Your task to perform on an android device: Go to calendar. Show me events next week Image 0: 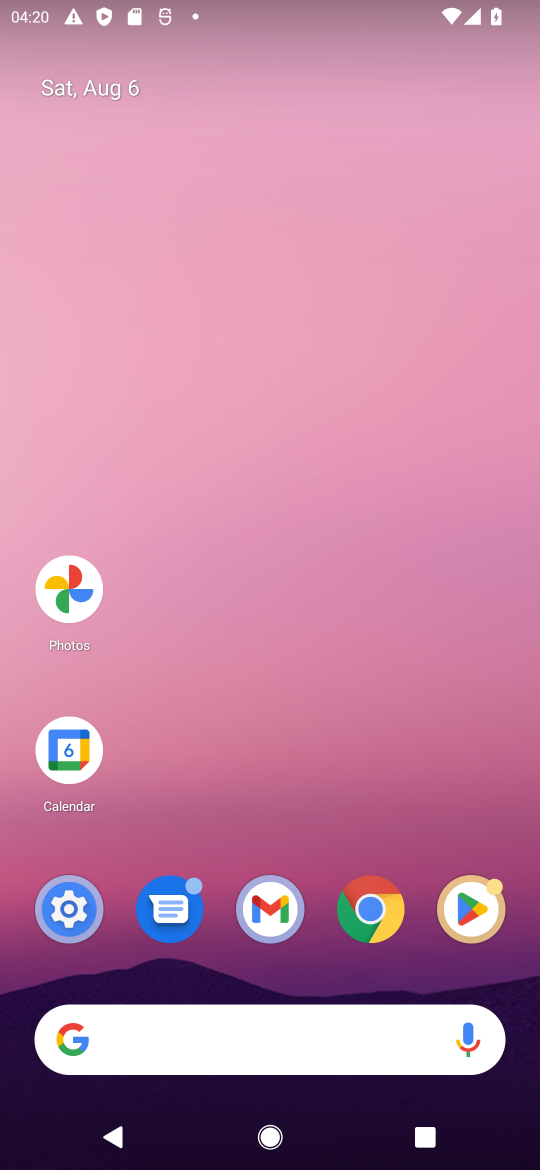
Step 0: click (62, 747)
Your task to perform on an android device: Go to calendar. Show me events next week Image 1: 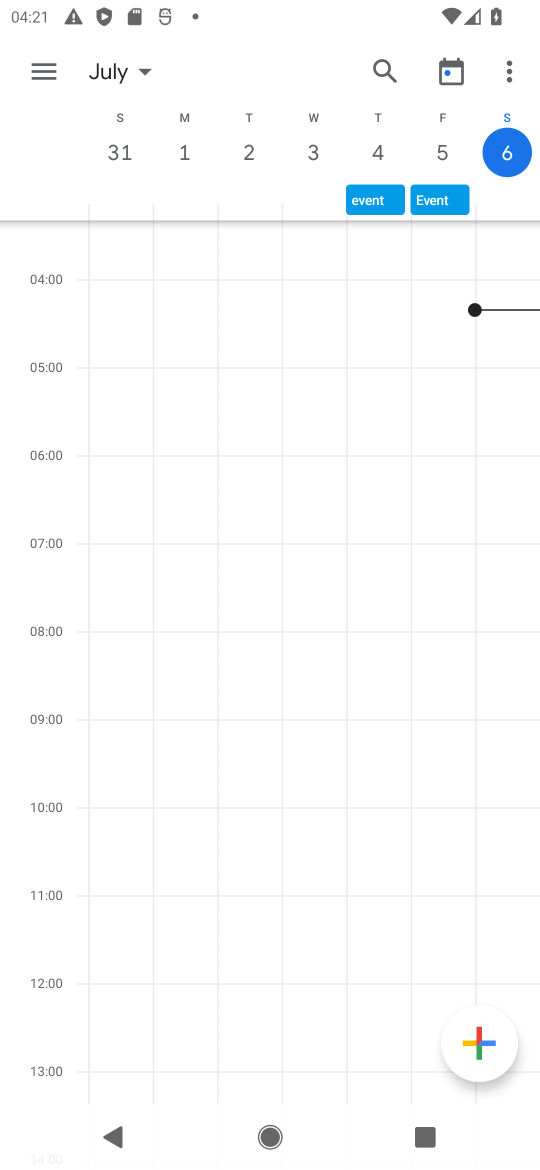
Step 1: click (155, 62)
Your task to perform on an android device: Go to calendar. Show me events next week Image 2: 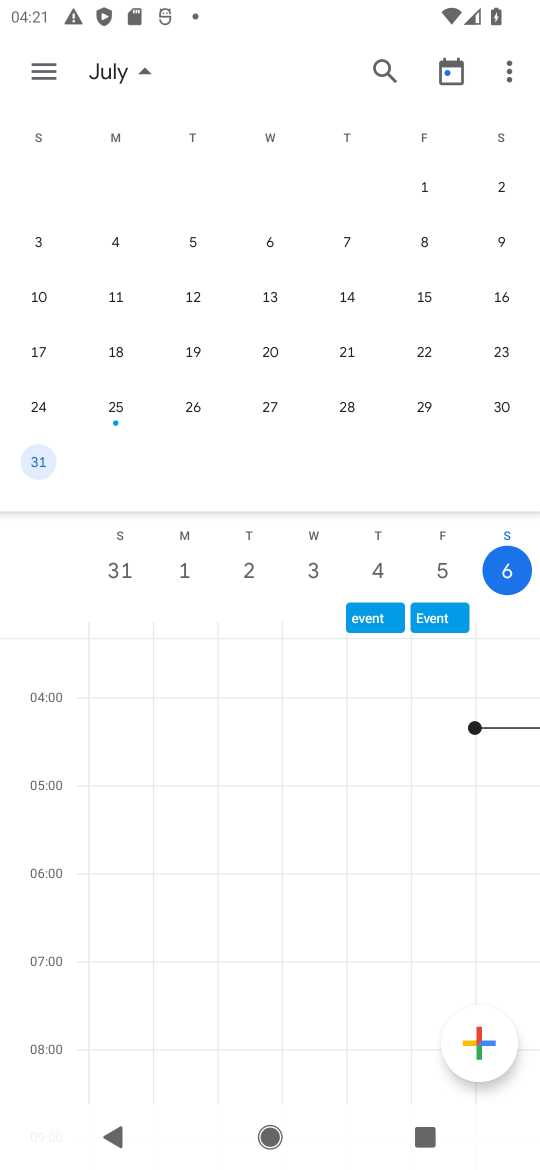
Step 2: drag from (478, 303) to (25, 291)
Your task to perform on an android device: Go to calendar. Show me events next week Image 3: 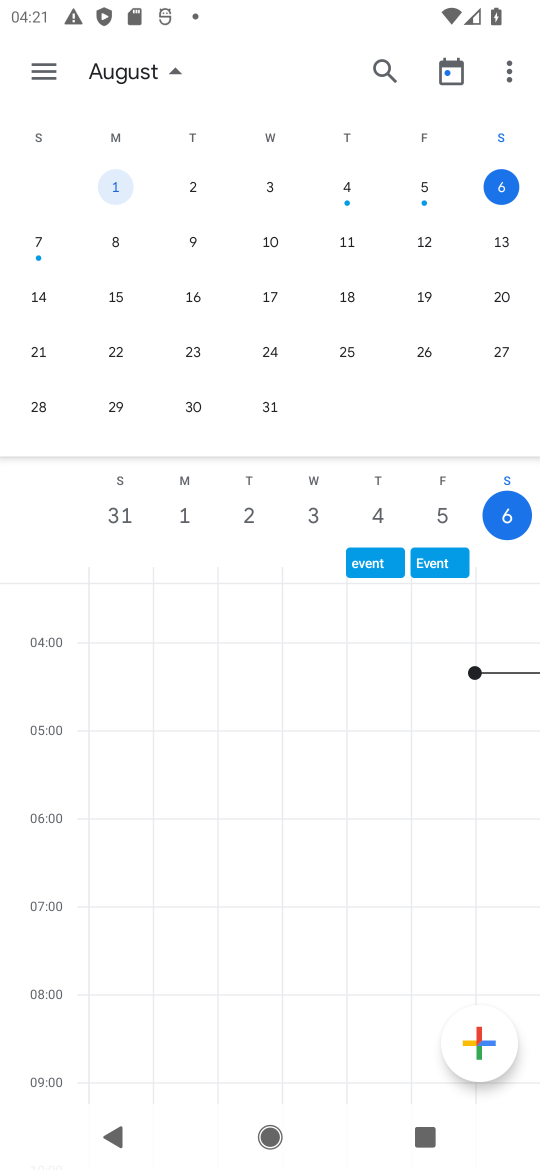
Step 3: click (112, 245)
Your task to perform on an android device: Go to calendar. Show me events next week Image 4: 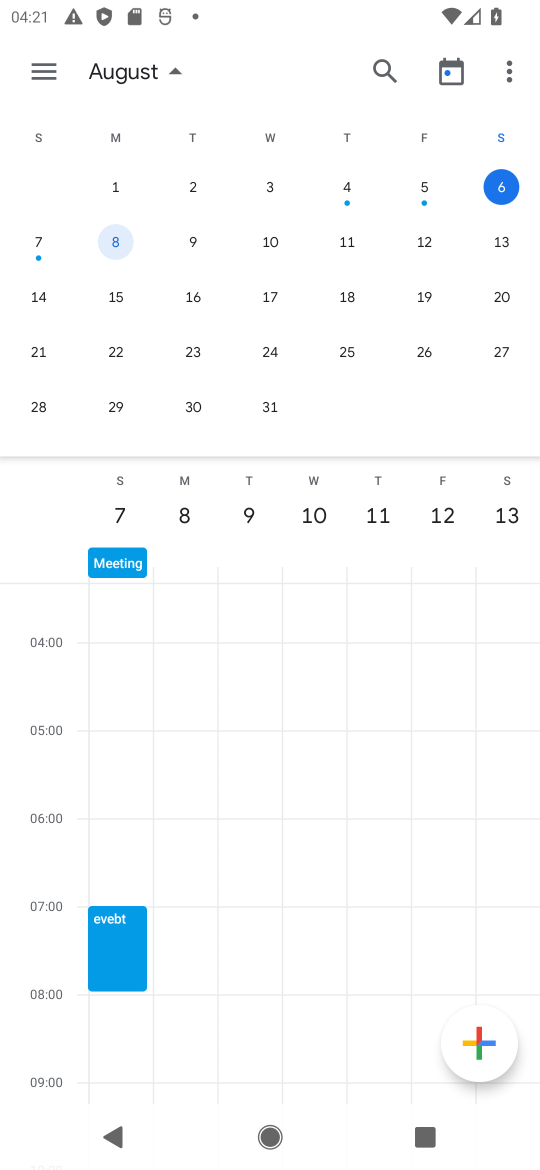
Step 4: task complete